Your task to perform on an android device: Open the calendar and show me this week's events Image 0: 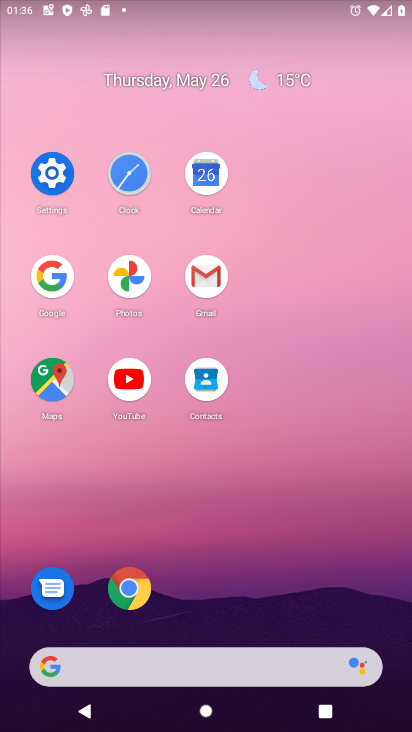
Step 0: click (198, 181)
Your task to perform on an android device: Open the calendar and show me this week's events Image 1: 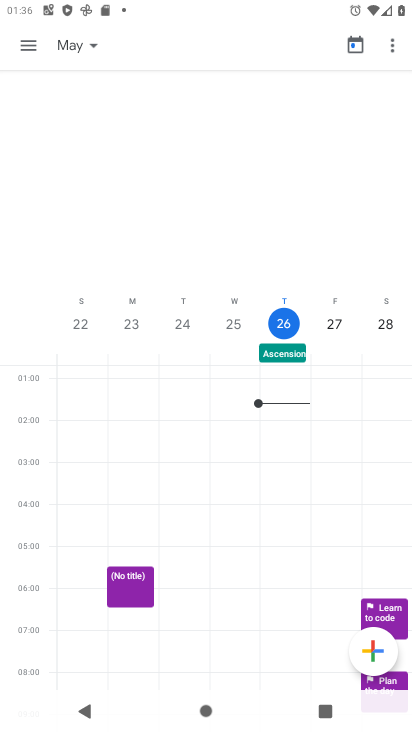
Step 1: task complete